Your task to perform on an android device: What's the weather going to be tomorrow? Image 0: 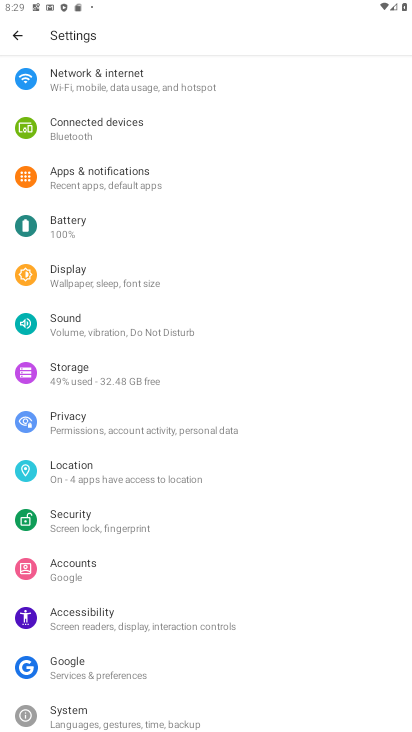
Step 0: press home button
Your task to perform on an android device: What's the weather going to be tomorrow? Image 1: 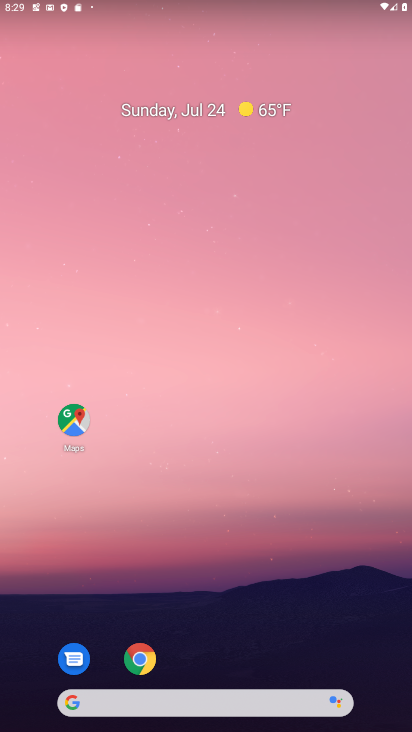
Step 1: click (275, 113)
Your task to perform on an android device: What's the weather going to be tomorrow? Image 2: 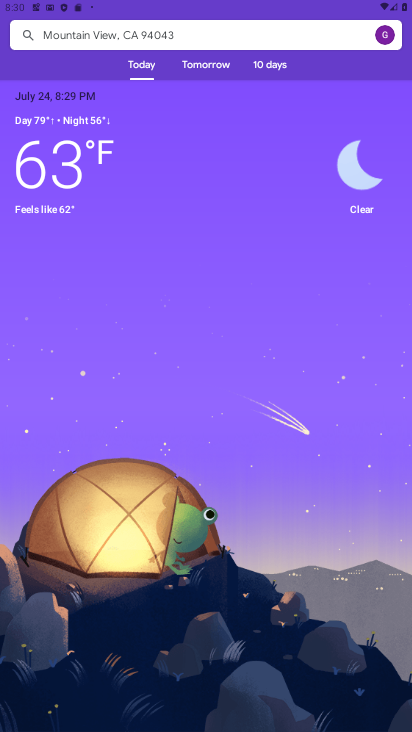
Step 2: click (204, 57)
Your task to perform on an android device: What's the weather going to be tomorrow? Image 3: 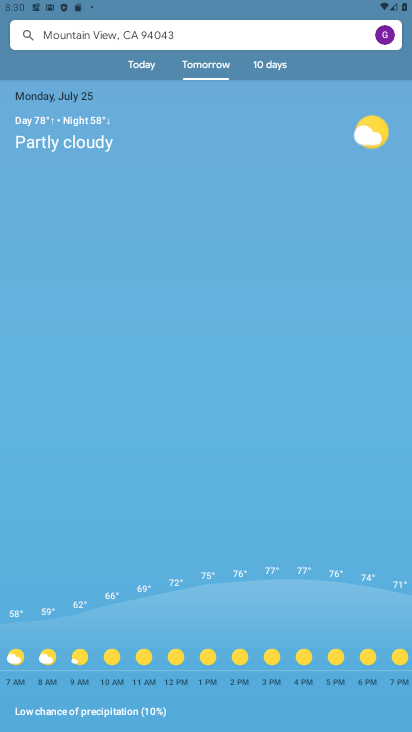
Step 3: task complete